Your task to perform on an android device: turn on javascript in the chrome app Image 0: 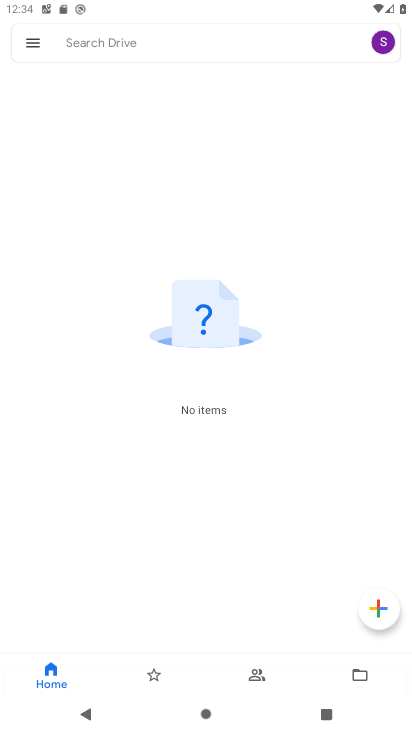
Step 0: press home button
Your task to perform on an android device: turn on javascript in the chrome app Image 1: 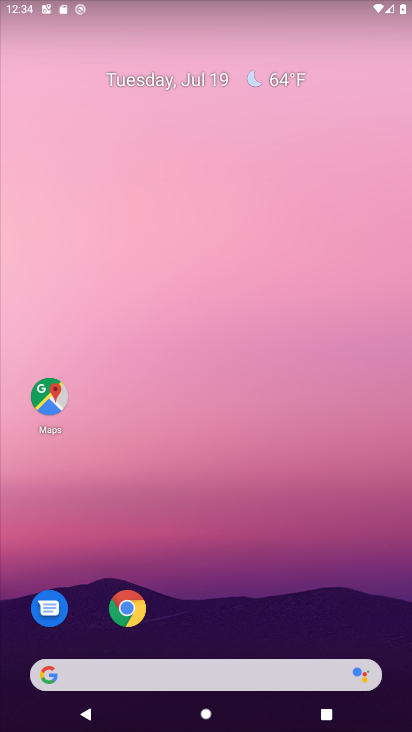
Step 1: drag from (244, 562) to (249, 90)
Your task to perform on an android device: turn on javascript in the chrome app Image 2: 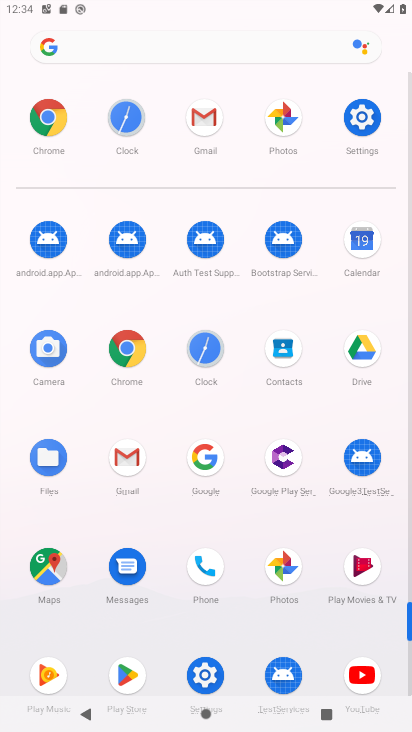
Step 2: click (137, 361)
Your task to perform on an android device: turn on javascript in the chrome app Image 3: 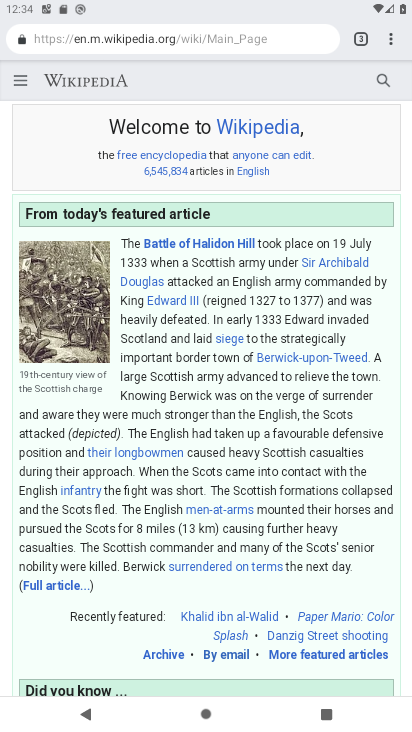
Step 3: click (392, 42)
Your task to perform on an android device: turn on javascript in the chrome app Image 4: 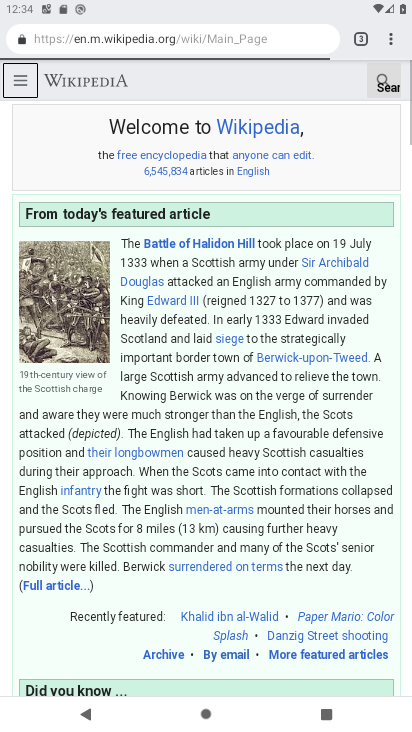
Step 4: click (392, 42)
Your task to perform on an android device: turn on javascript in the chrome app Image 5: 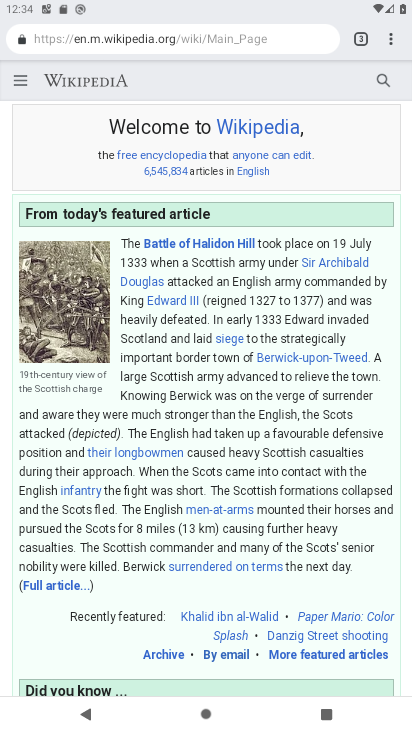
Step 5: click (391, 42)
Your task to perform on an android device: turn on javascript in the chrome app Image 6: 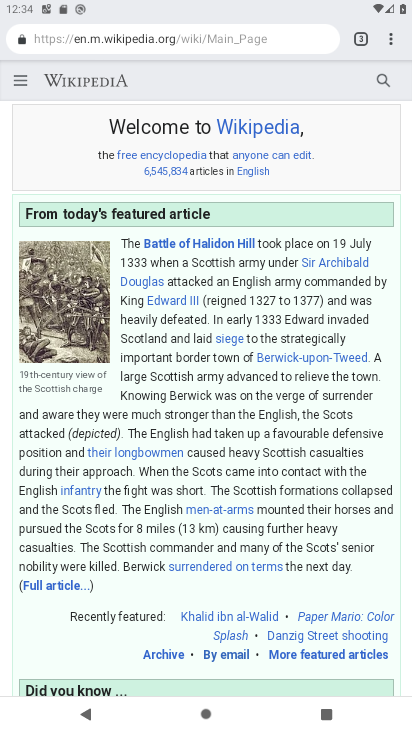
Step 6: click (391, 42)
Your task to perform on an android device: turn on javascript in the chrome app Image 7: 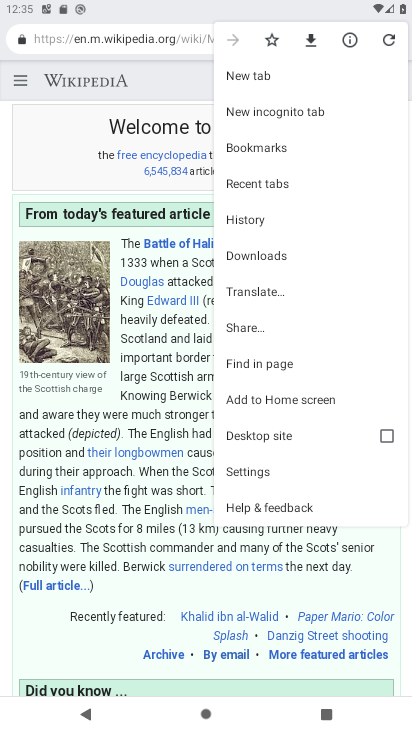
Step 7: click (266, 479)
Your task to perform on an android device: turn on javascript in the chrome app Image 8: 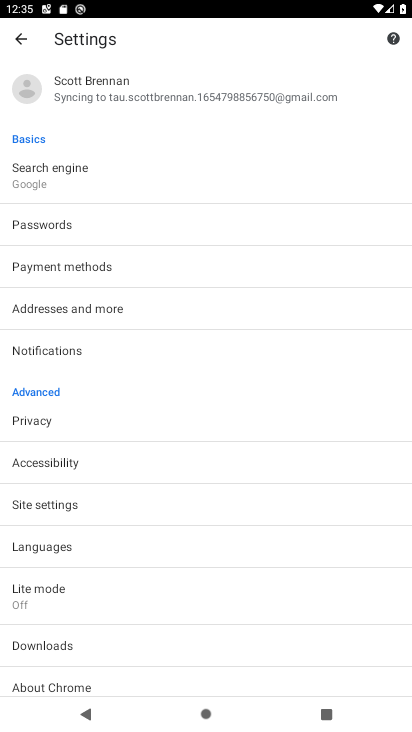
Step 8: click (48, 501)
Your task to perform on an android device: turn on javascript in the chrome app Image 9: 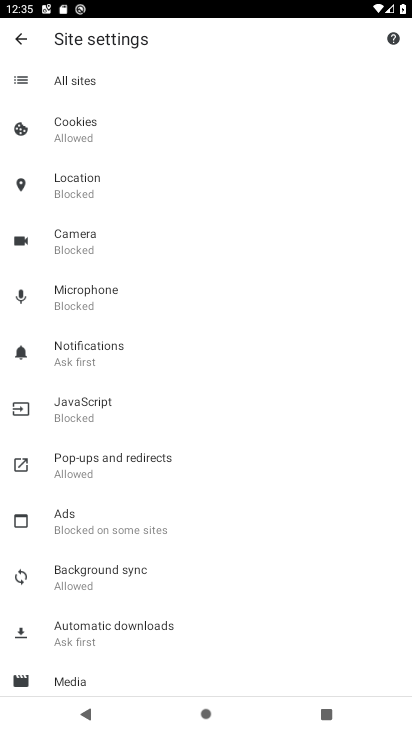
Step 9: click (139, 420)
Your task to perform on an android device: turn on javascript in the chrome app Image 10: 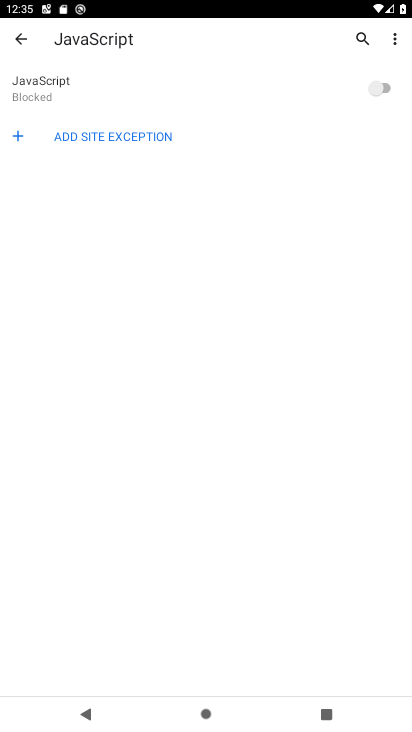
Step 10: click (377, 90)
Your task to perform on an android device: turn on javascript in the chrome app Image 11: 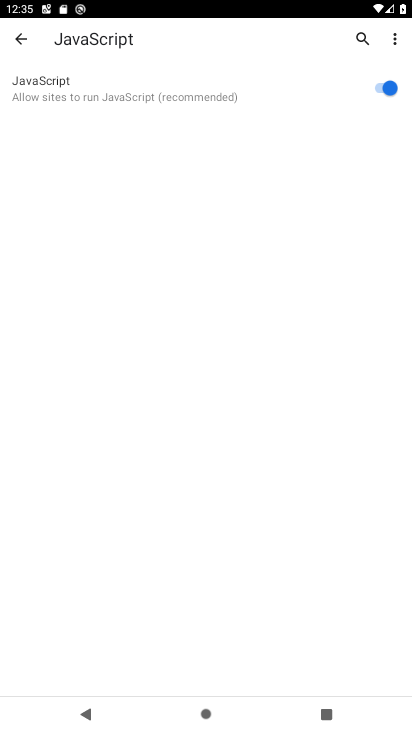
Step 11: task complete